Your task to perform on an android device: Go to Google Image 0: 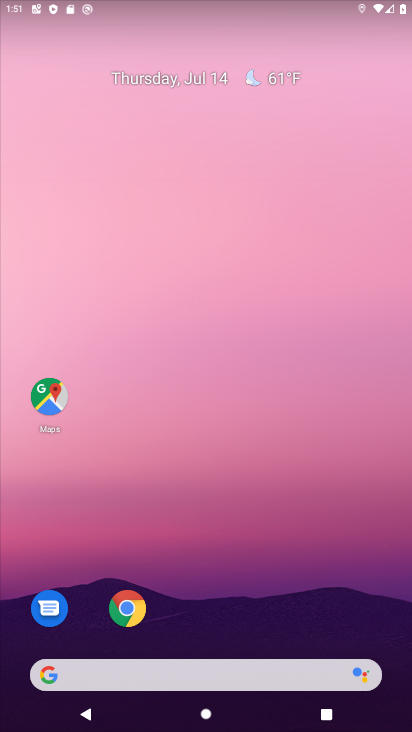
Step 0: drag from (198, 676) to (241, 49)
Your task to perform on an android device: Go to Google Image 1: 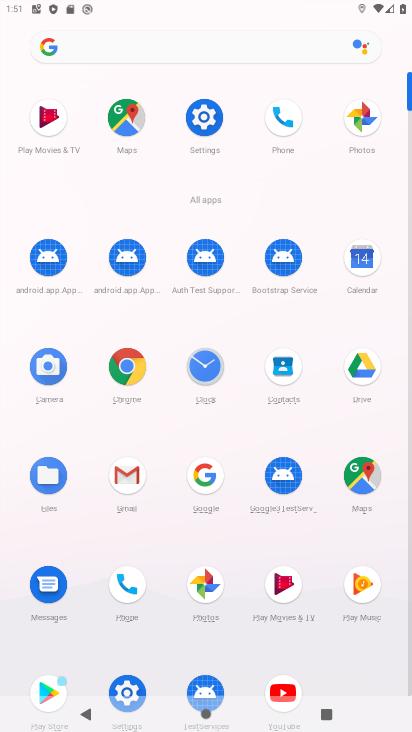
Step 1: click (203, 475)
Your task to perform on an android device: Go to Google Image 2: 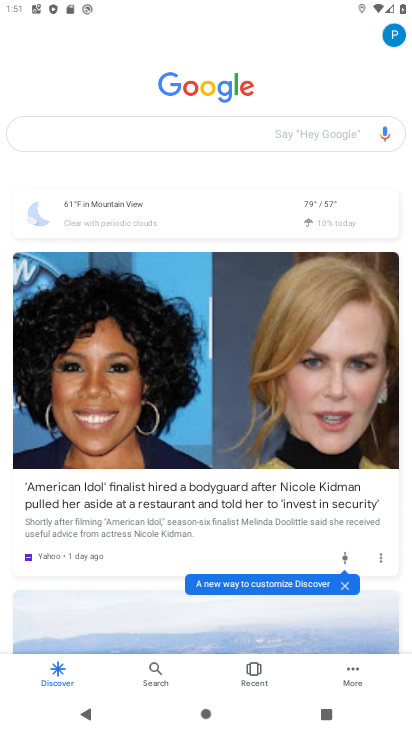
Step 2: click (203, 475)
Your task to perform on an android device: Go to Google Image 3: 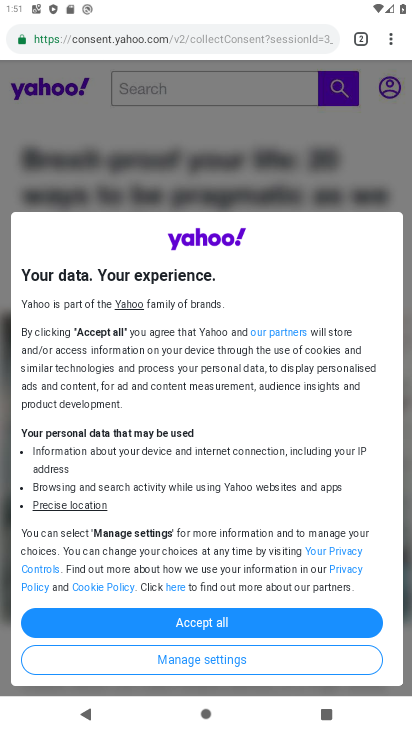
Step 3: task complete